Your task to perform on an android device: install app "Airtel Thanks" Image 0: 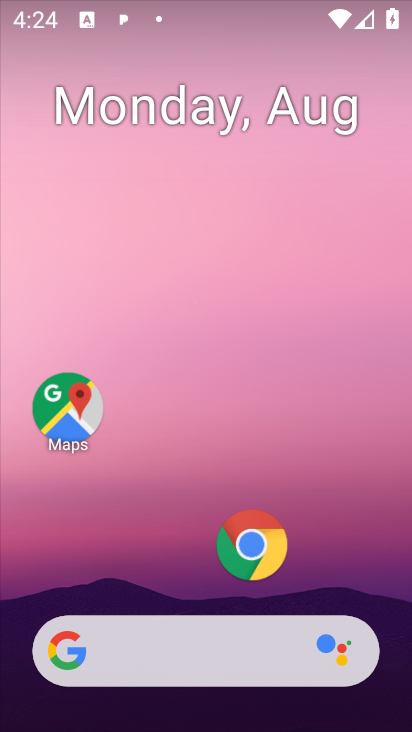
Step 0: drag from (128, 425) to (237, 48)
Your task to perform on an android device: install app "Airtel Thanks" Image 1: 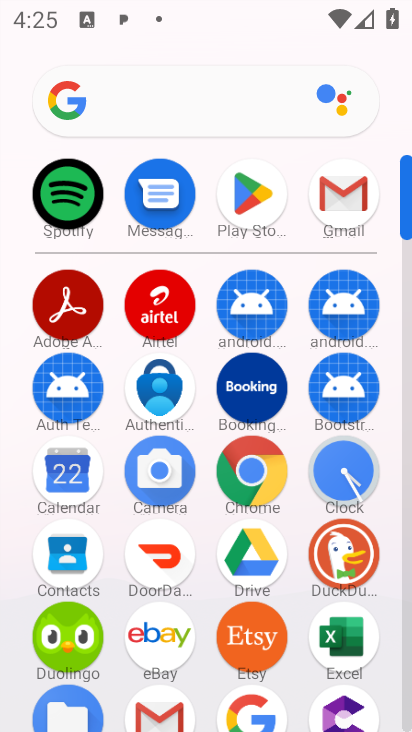
Step 1: click (156, 327)
Your task to perform on an android device: install app "Airtel Thanks" Image 2: 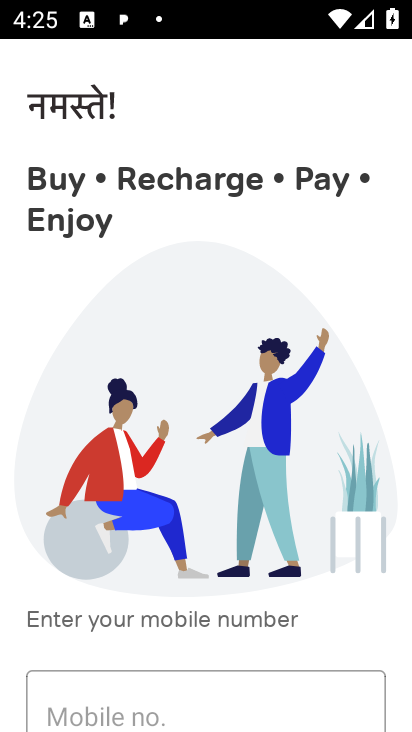
Step 2: task complete